Your task to perform on an android device: Open Chrome and go to settings Image 0: 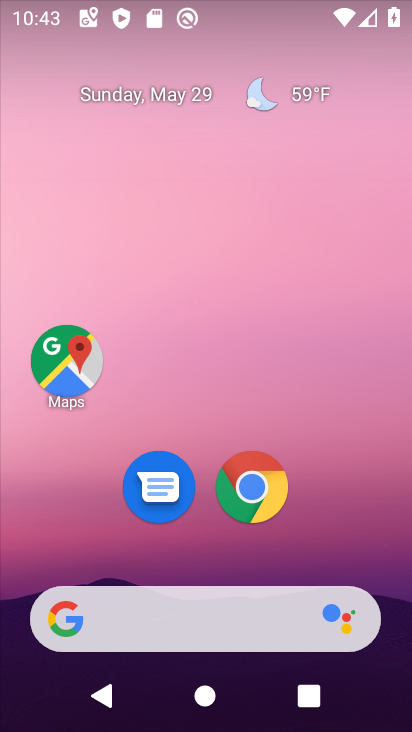
Step 0: click (265, 479)
Your task to perform on an android device: Open Chrome and go to settings Image 1: 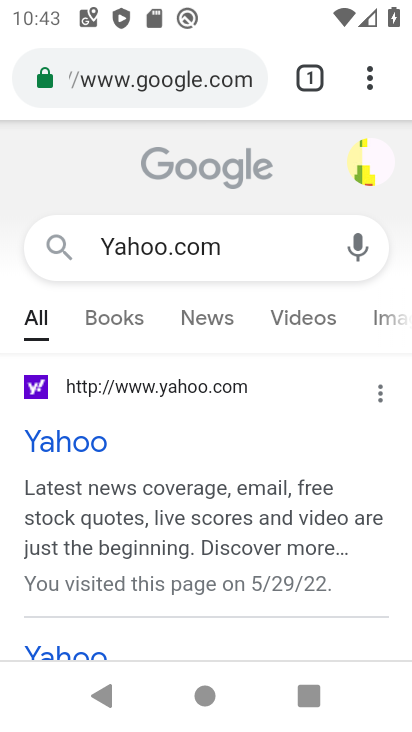
Step 1: click (369, 81)
Your task to perform on an android device: Open Chrome and go to settings Image 2: 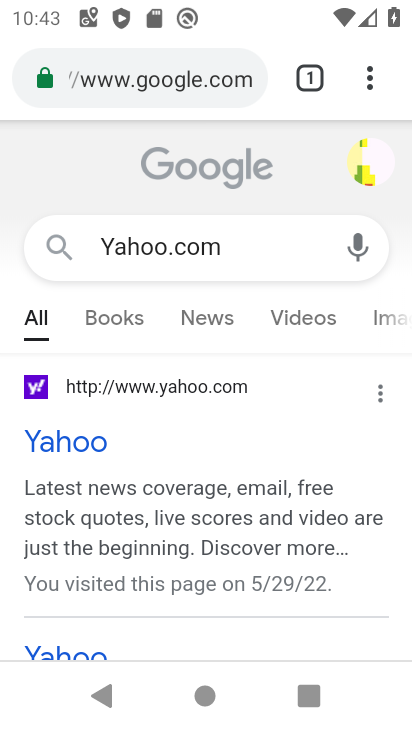
Step 2: click (368, 71)
Your task to perform on an android device: Open Chrome and go to settings Image 3: 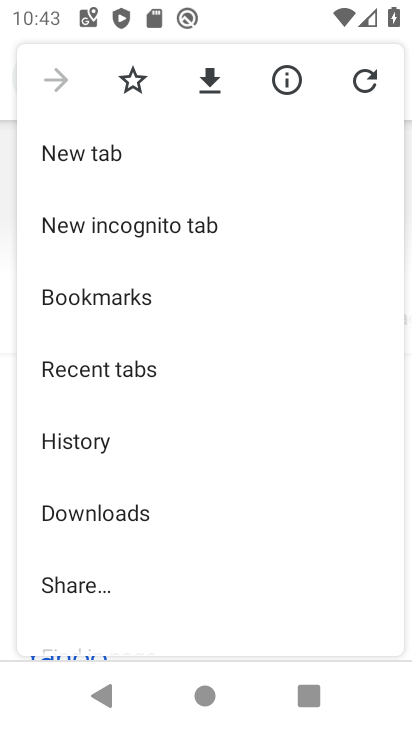
Step 3: drag from (231, 595) to (238, 243)
Your task to perform on an android device: Open Chrome and go to settings Image 4: 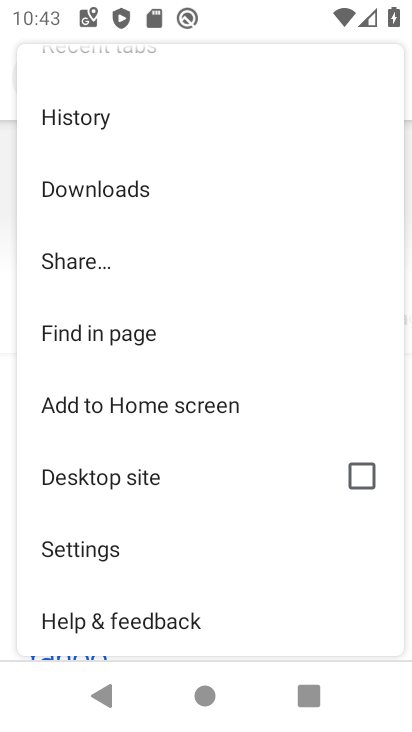
Step 4: click (117, 549)
Your task to perform on an android device: Open Chrome and go to settings Image 5: 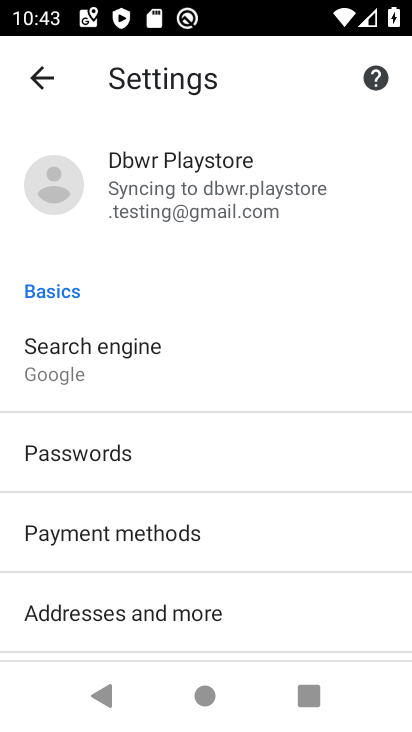
Step 5: task complete